Your task to perform on an android device: turn on bluetooth scan Image 0: 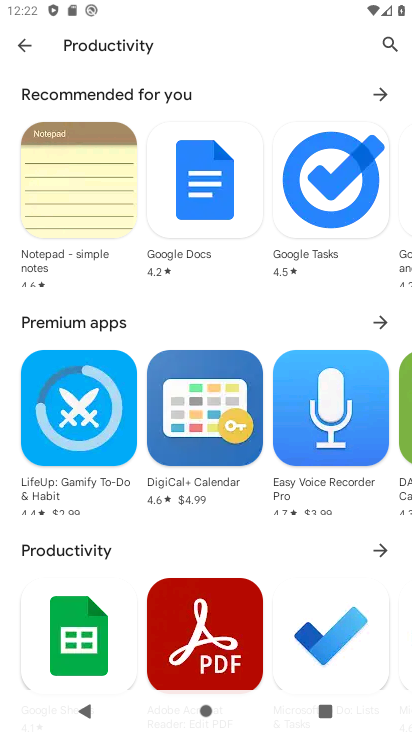
Step 0: press home button
Your task to perform on an android device: turn on bluetooth scan Image 1: 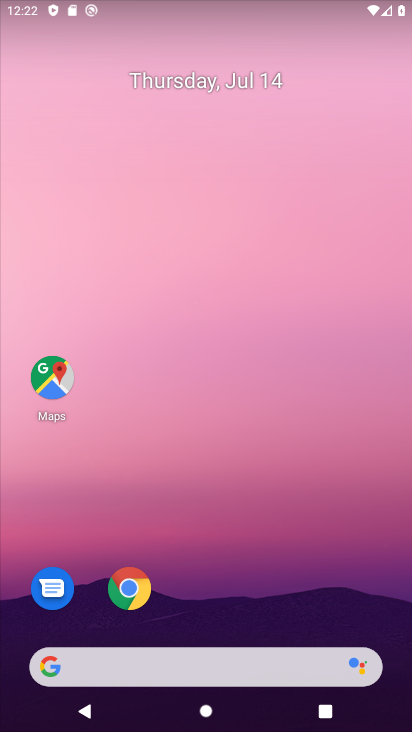
Step 1: drag from (197, 641) to (349, 72)
Your task to perform on an android device: turn on bluetooth scan Image 2: 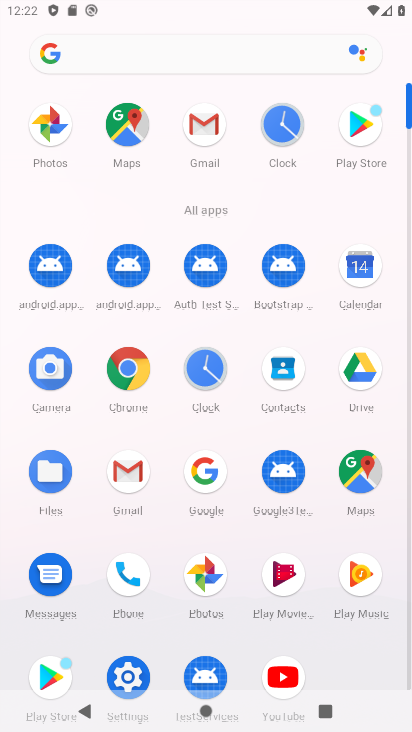
Step 2: click (125, 671)
Your task to perform on an android device: turn on bluetooth scan Image 3: 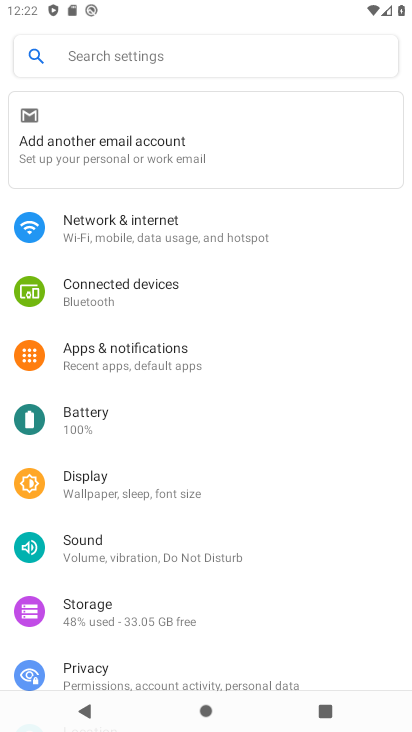
Step 3: drag from (239, 612) to (345, 237)
Your task to perform on an android device: turn on bluetooth scan Image 4: 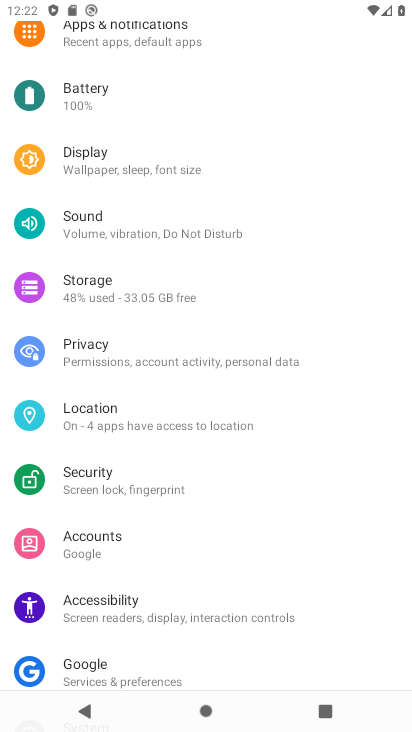
Step 4: click (109, 423)
Your task to perform on an android device: turn on bluetooth scan Image 5: 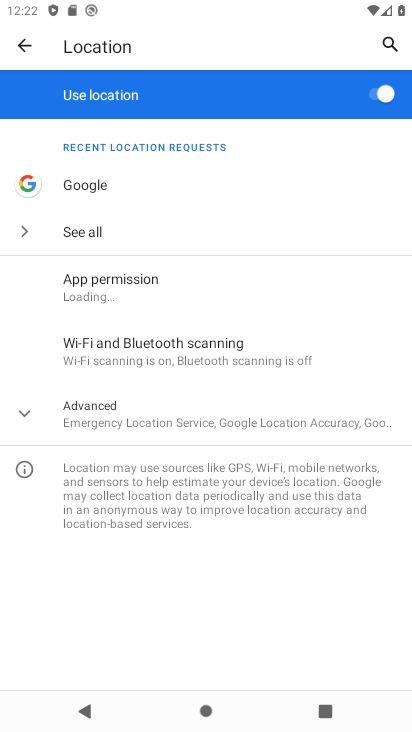
Step 5: click (140, 363)
Your task to perform on an android device: turn on bluetooth scan Image 6: 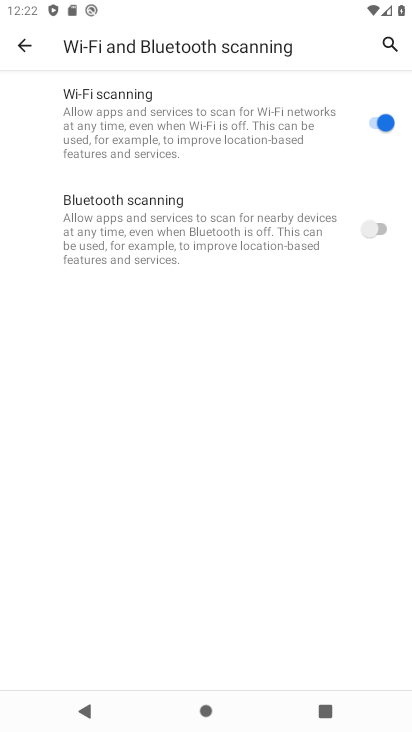
Step 6: click (383, 223)
Your task to perform on an android device: turn on bluetooth scan Image 7: 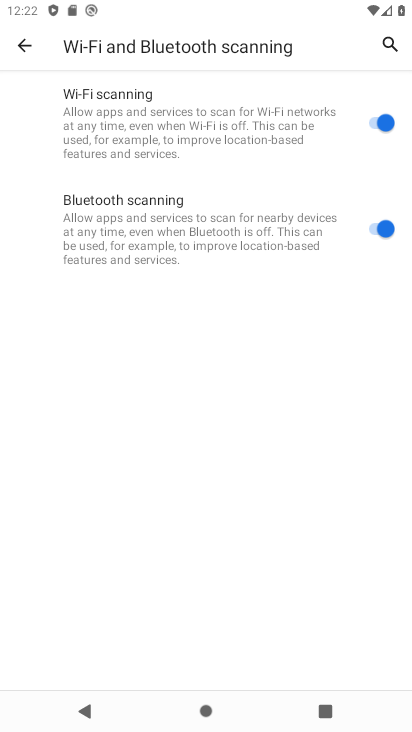
Step 7: task complete